Your task to perform on an android device: Open Wikipedia Image 0: 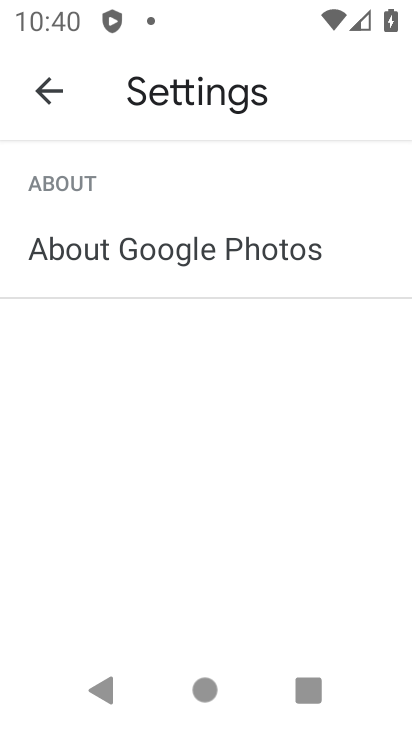
Step 0: press home button
Your task to perform on an android device: Open Wikipedia Image 1: 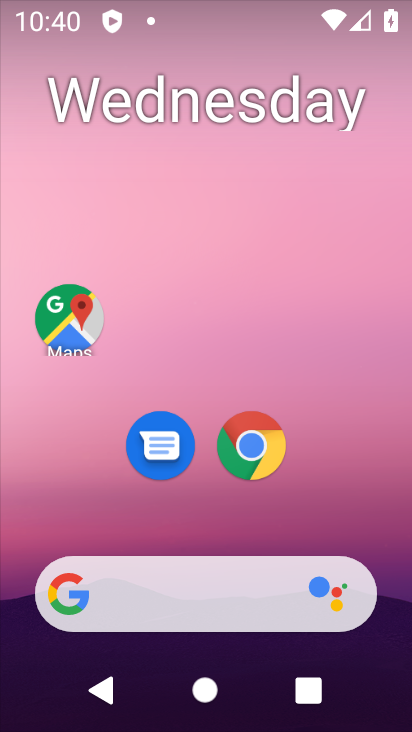
Step 1: drag from (331, 418) to (308, 87)
Your task to perform on an android device: Open Wikipedia Image 2: 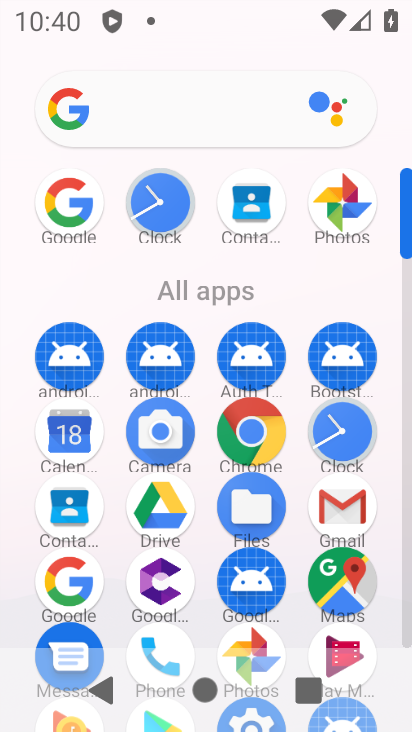
Step 2: click (89, 589)
Your task to perform on an android device: Open Wikipedia Image 3: 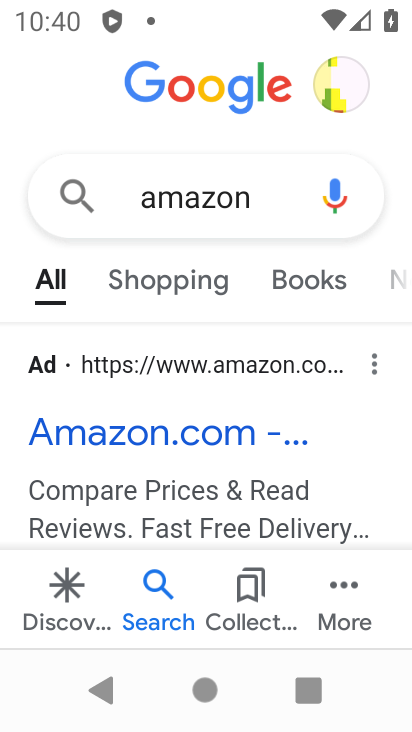
Step 3: click (259, 209)
Your task to perform on an android device: Open Wikipedia Image 4: 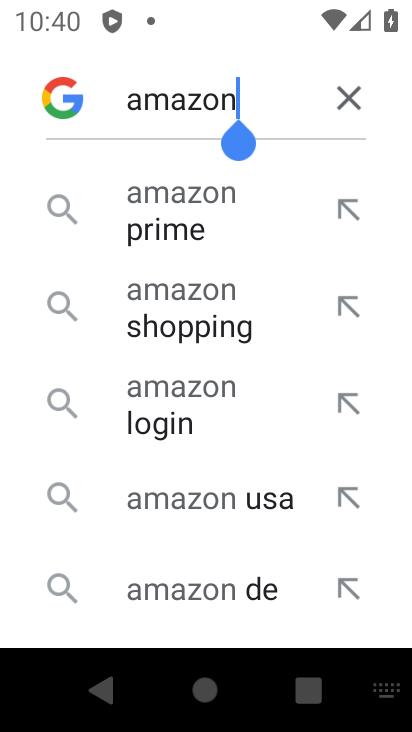
Step 4: click (342, 103)
Your task to perform on an android device: Open Wikipedia Image 5: 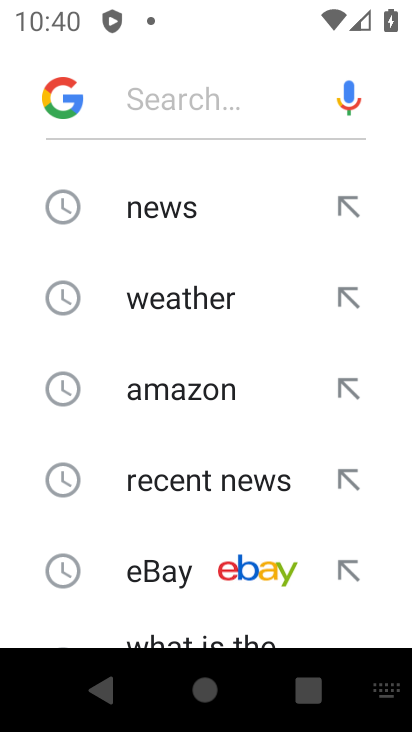
Step 5: type "wikipedia"
Your task to perform on an android device: Open Wikipedia Image 6: 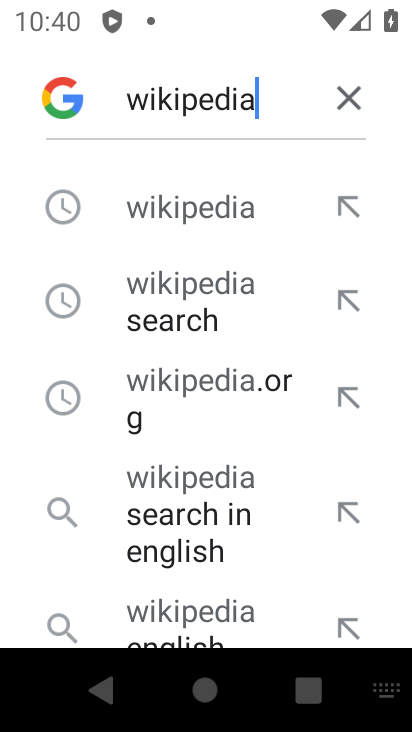
Step 6: click (183, 218)
Your task to perform on an android device: Open Wikipedia Image 7: 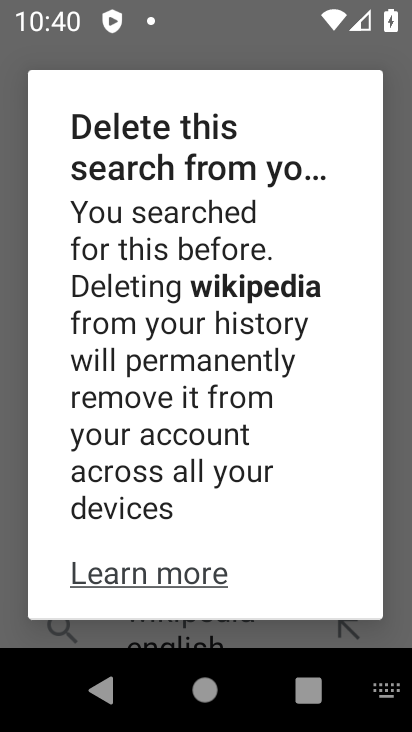
Step 7: press back button
Your task to perform on an android device: Open Wikipedia Image 8: 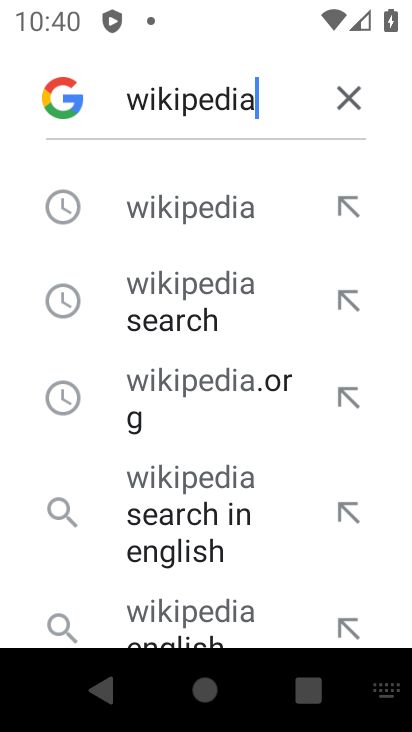
Step 8: click (205, 226)
Your task to perform on an android device: Open Wikipedia Image 9: 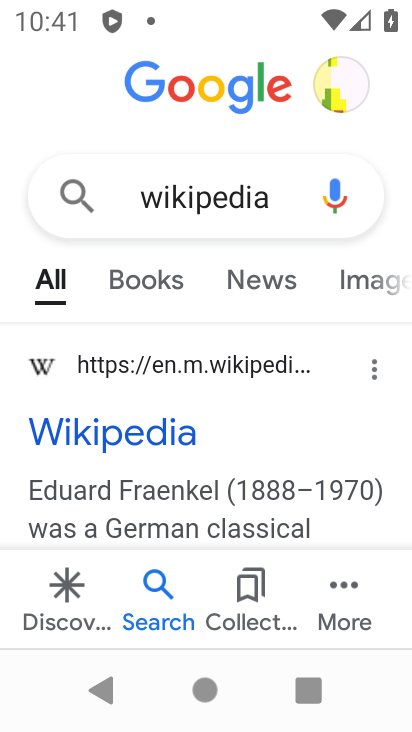
Step 9: click (166, 443)
Your task to perform on an android device: Open Wikipedia Image 10: 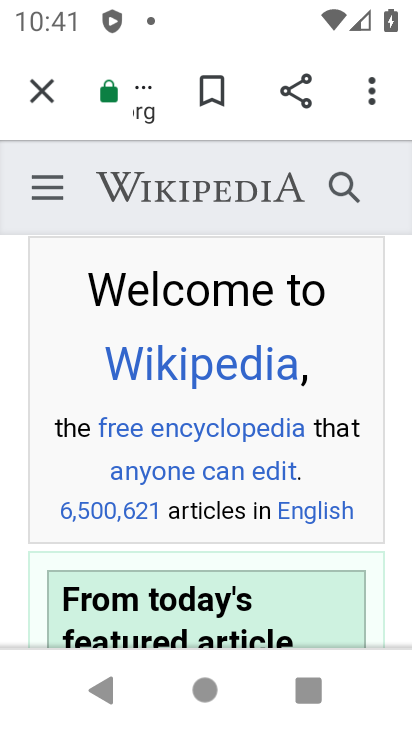
Step 10: task complete